Your task to perform on an android device: Open eBay Image 0: 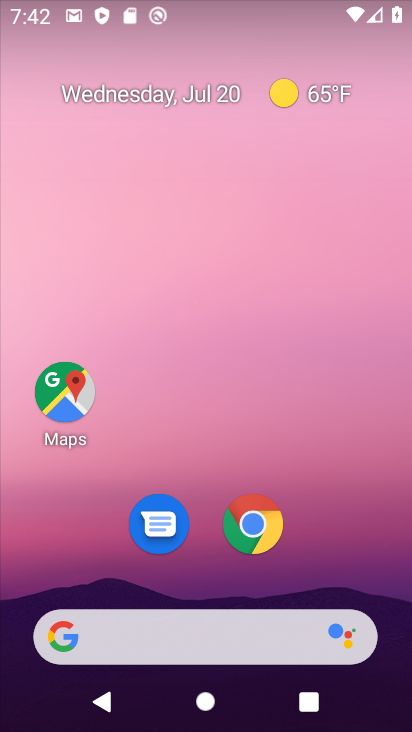
Step 0: click (258, 642)
Your task to perform on an android device: Open eBay Image 1: 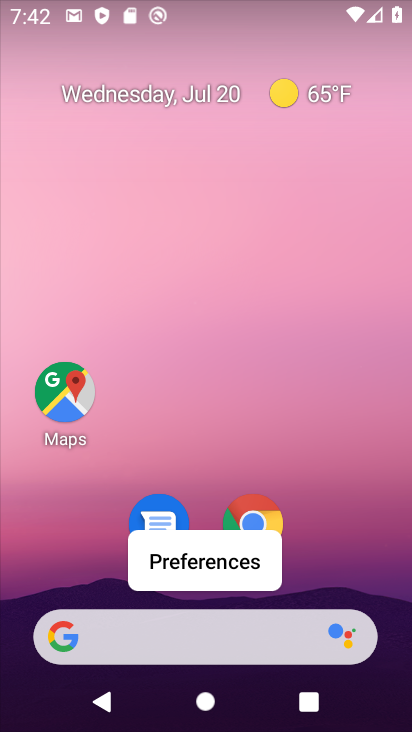
Step 1: click (169, 644)
Your task to perform on an android device: Open eBay Image 2: 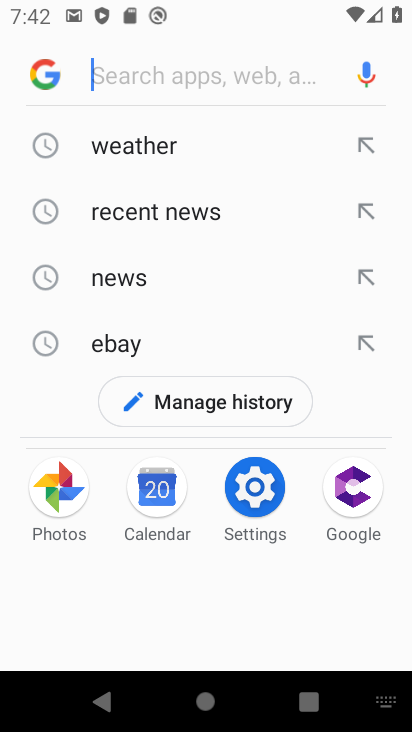
Step 2: click (122, 332)
Your task to perform on an android device: Open eBay Image 3: 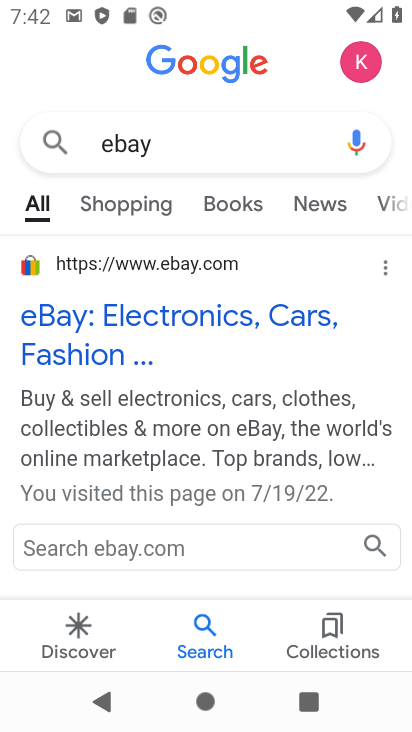
Step 3: click (71, 322)
Your task to perform on an android device: Open eBay Image 4: 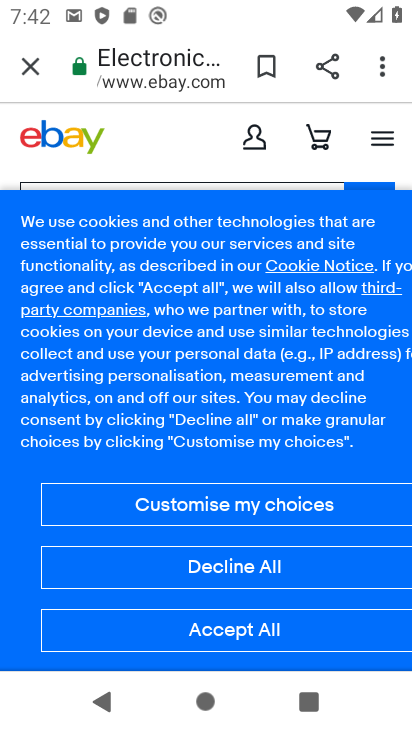
Step 4: task complete